Your task to perform on an android device: turn off javascript in the chrome app Image 0: 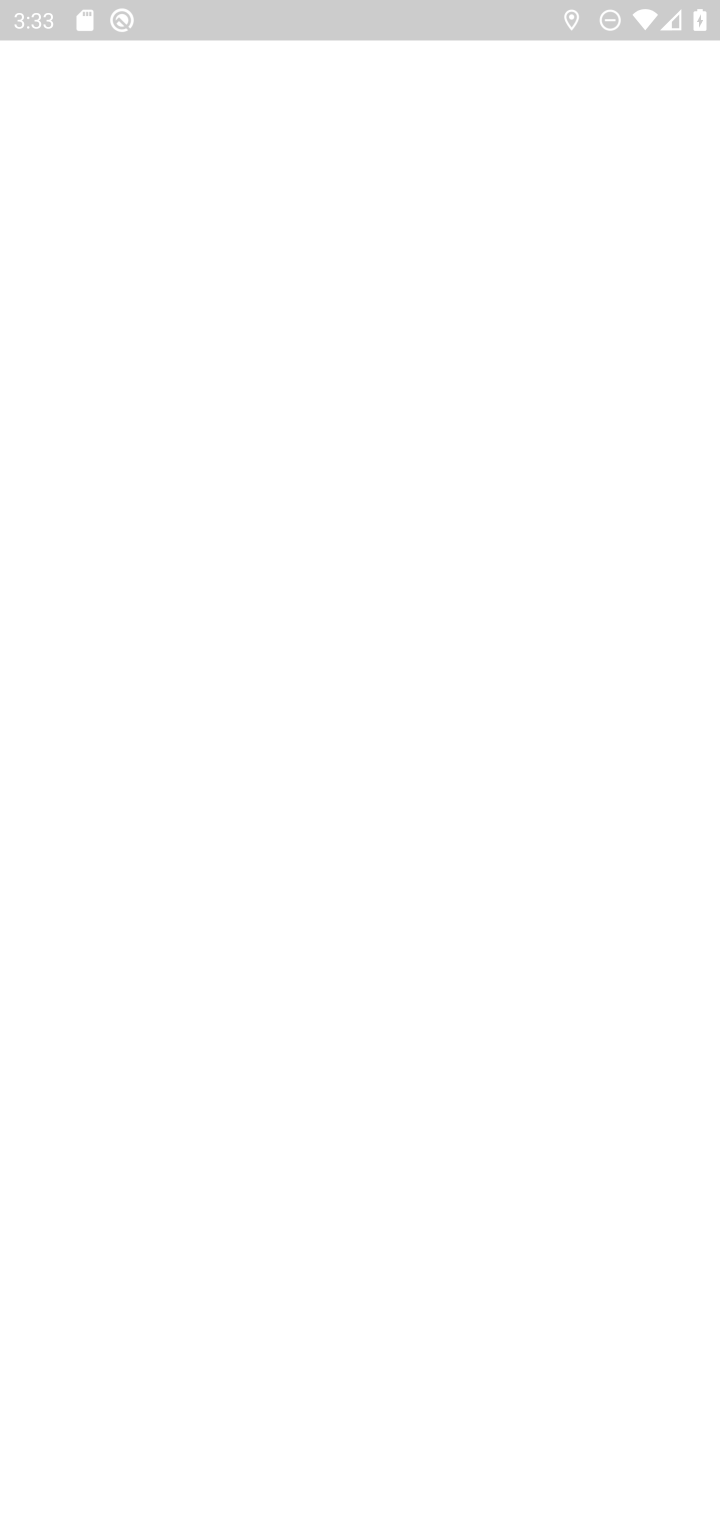
Step 0: press home button
Your task to perform on an android device: turn off javascript in the chrome app Image 1: 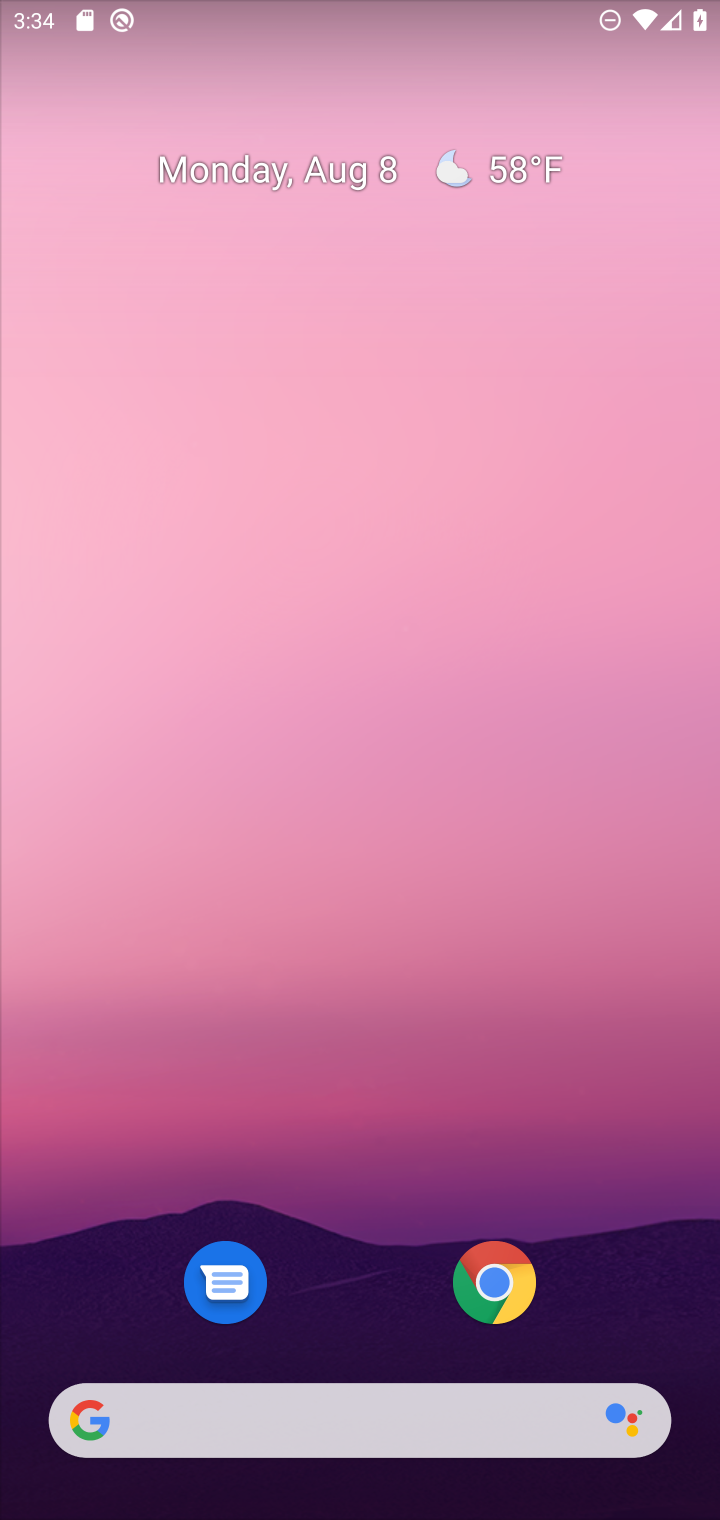
Step 1: drag from (364, 1229) to (532, 229)
Your task to perform on an android device: turn off javascript in the chrome app Image 2: 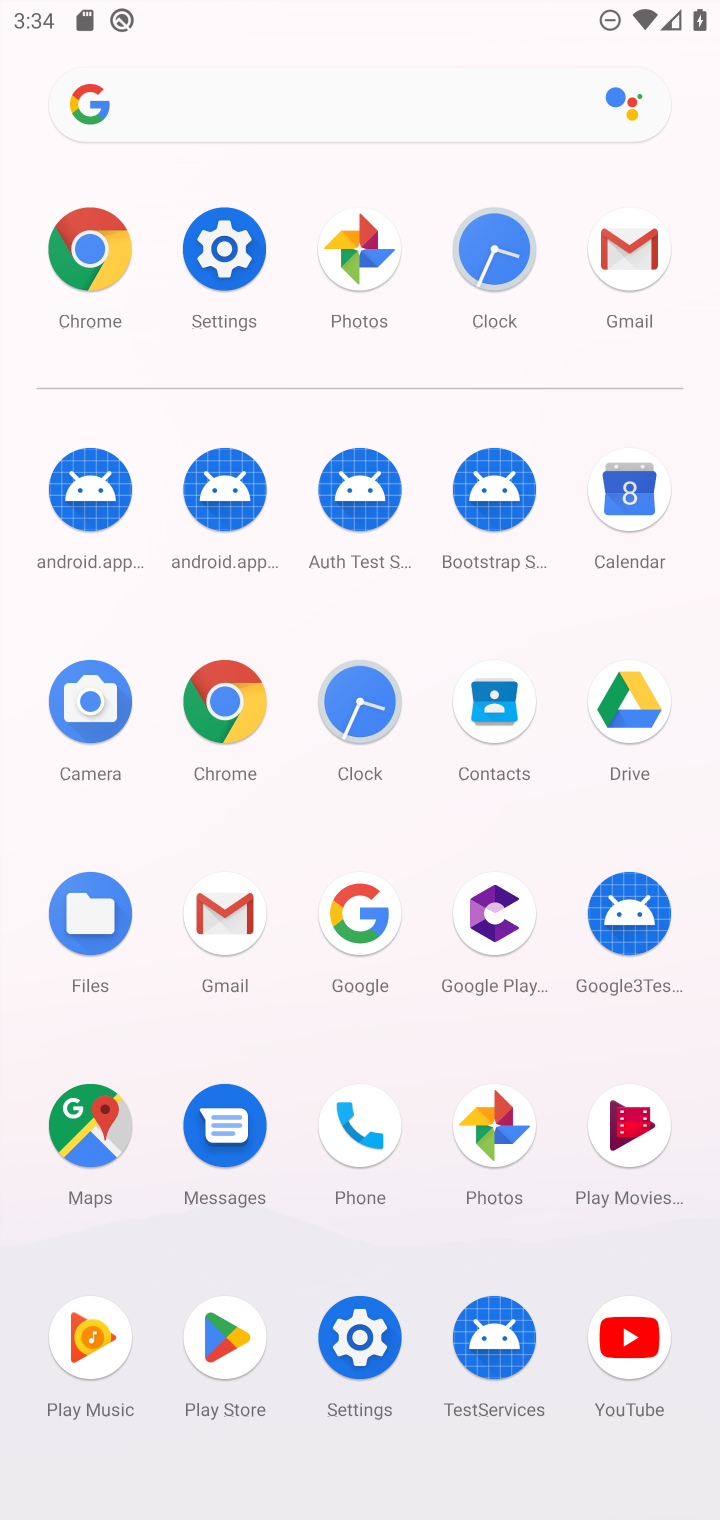
Step 2: click (217, 692)
Your task to perform on an android device: turn off javascript in the chrome app Image 3: 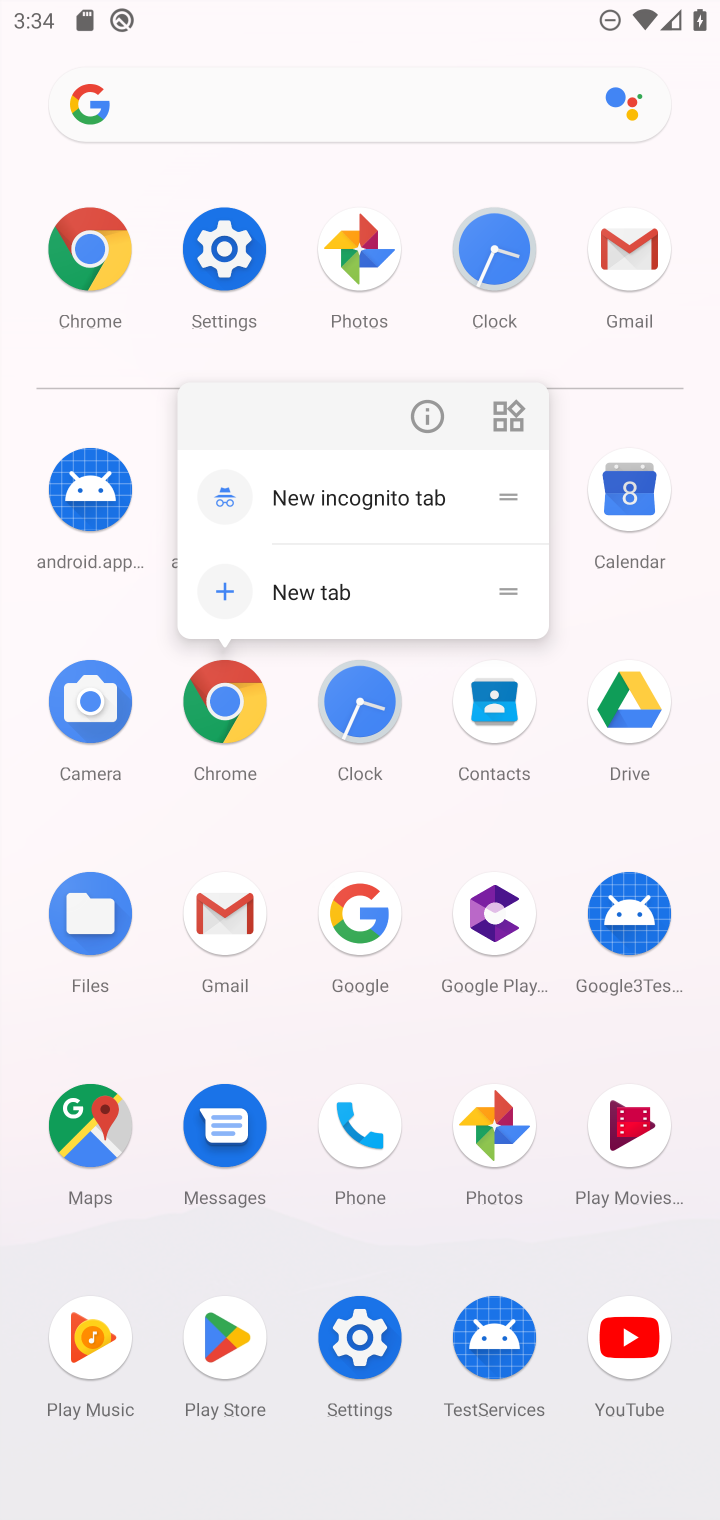
Step 3: click (221, 697)
Your task to perform on an android device: turn off javascript in the chrome app Image 4: 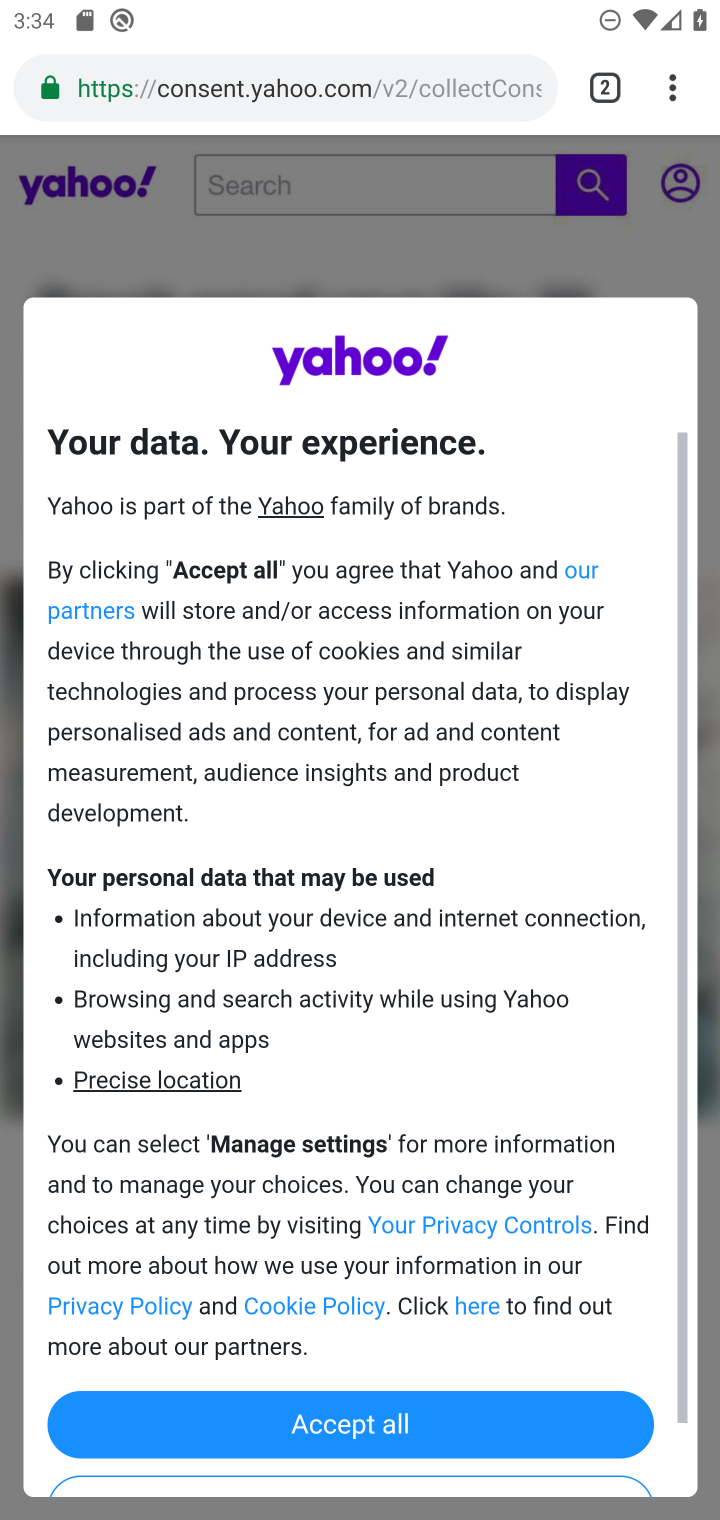
Step 4: drag from (671, 90) to (350, 1141)
Your task to perform on an android device: turn off javascript in the chrome app Image 5: 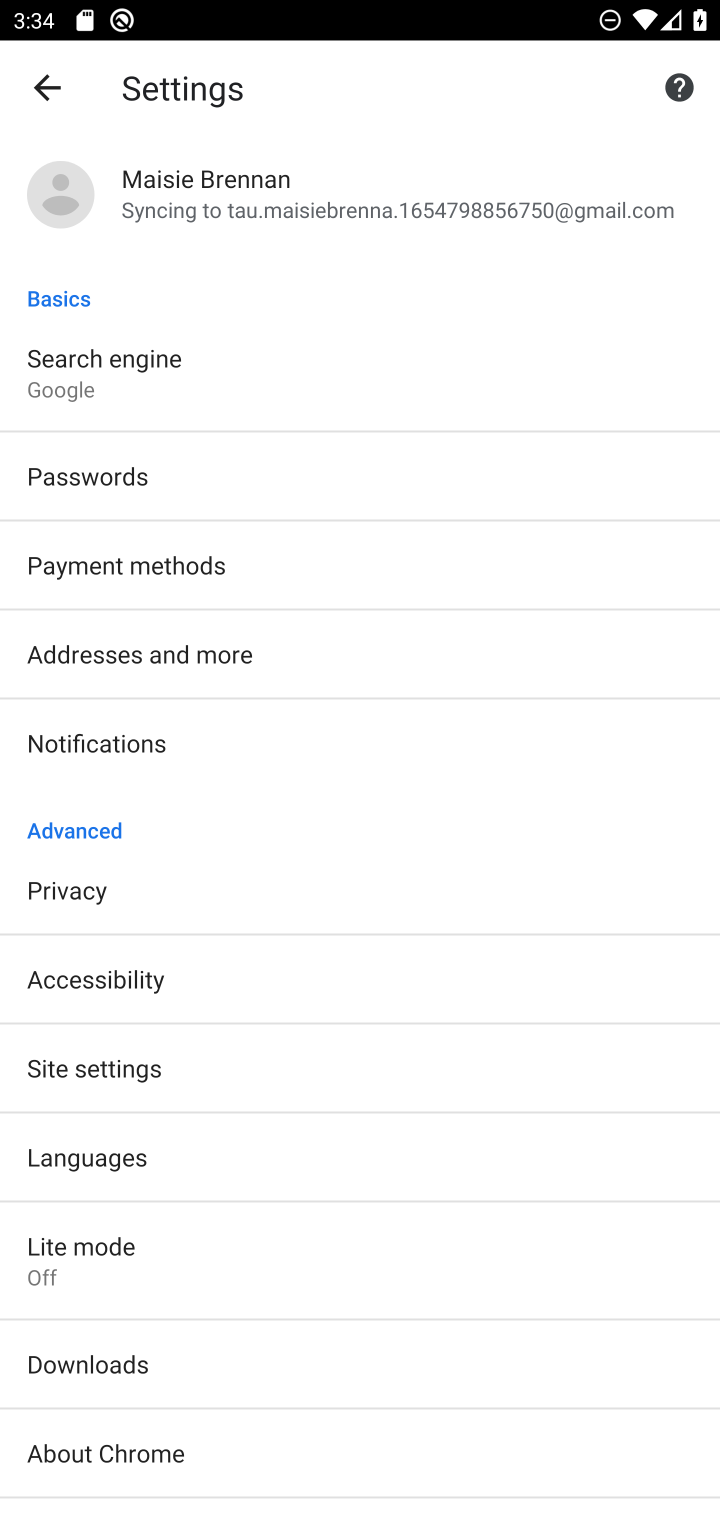
Step 5: click (125, 1067)
Your task to perform on an android device: turn off javascript in the chrome app Image 6: 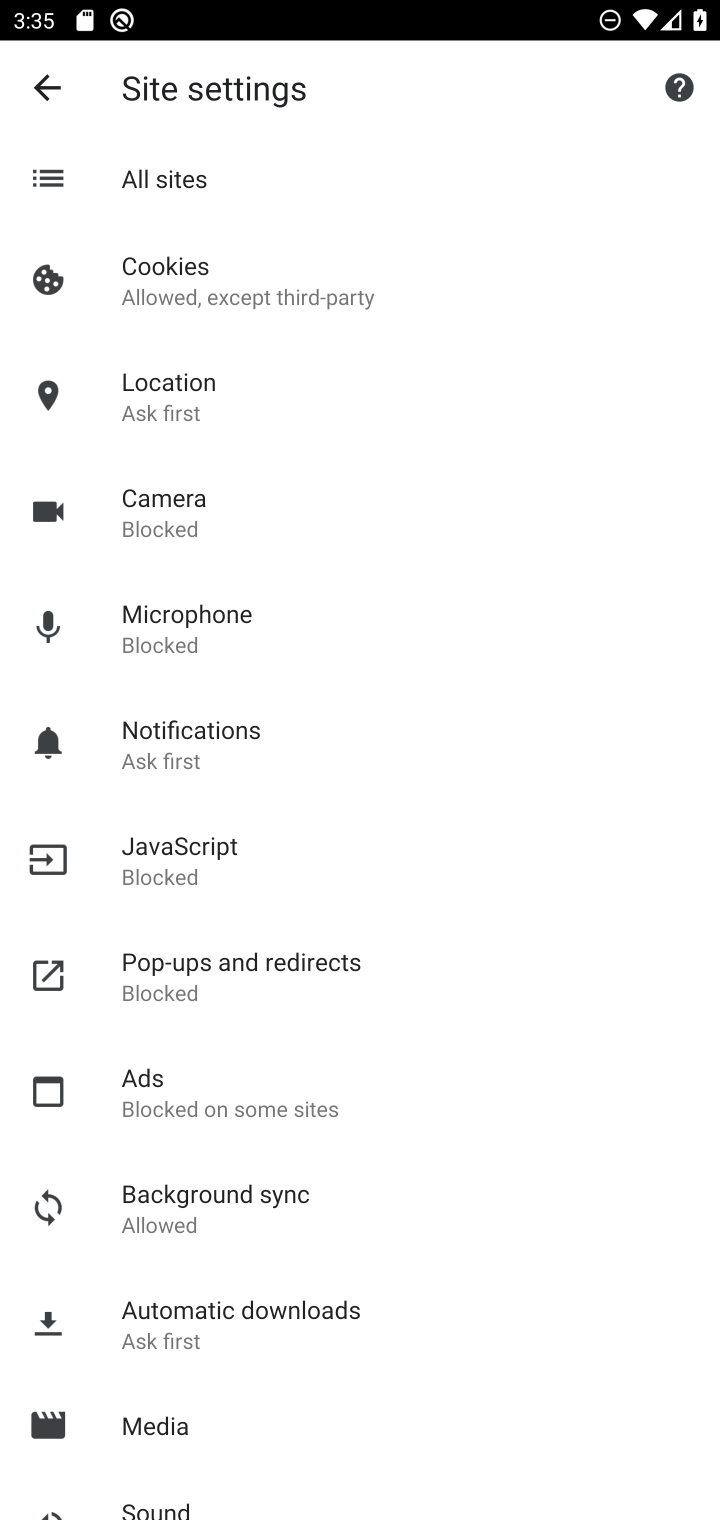
Step 6: click (203, 836)
Your task to perform on an android device: turn off javascript in the chrome app Image 7: 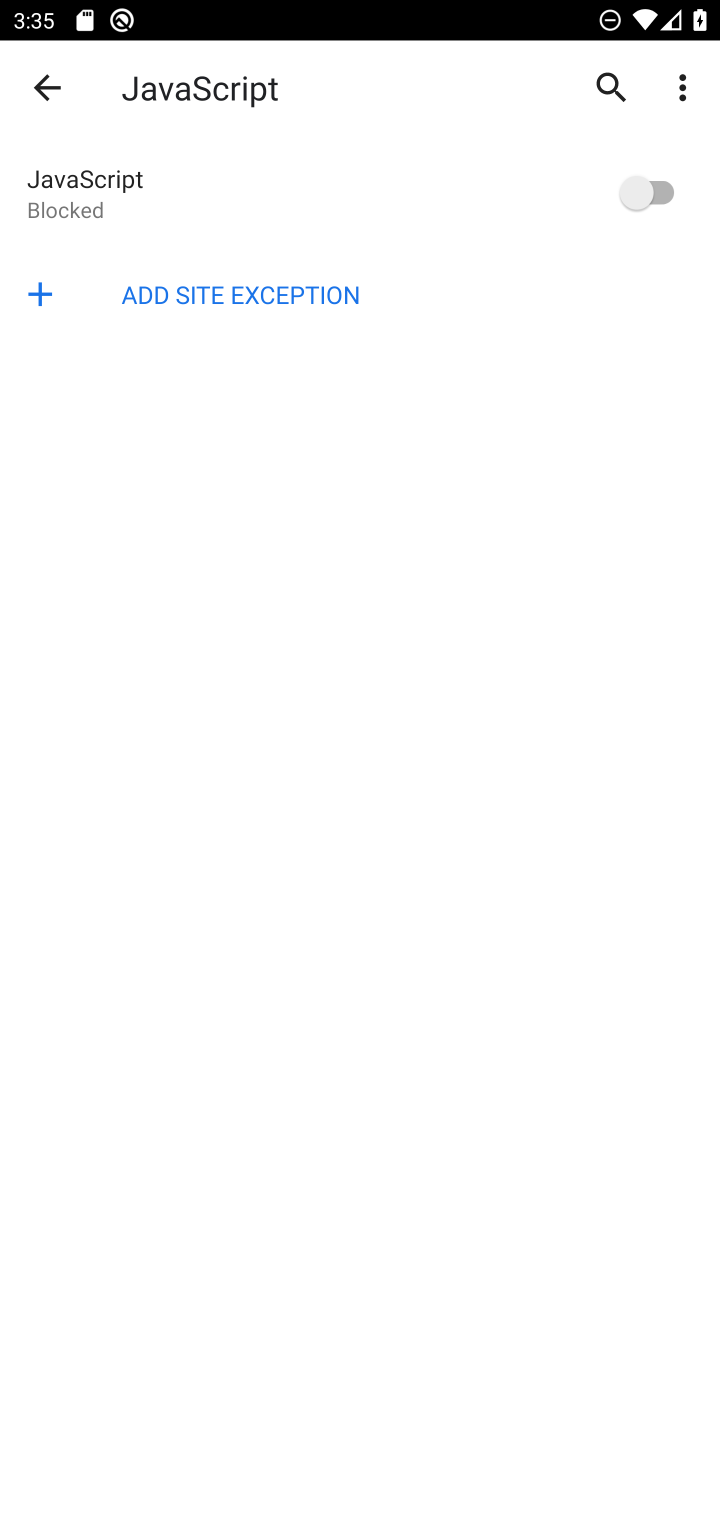
Step 7: task complete